Your task to perform on an android device: Search for 3d printed chess sets on Etsy. Image 0: 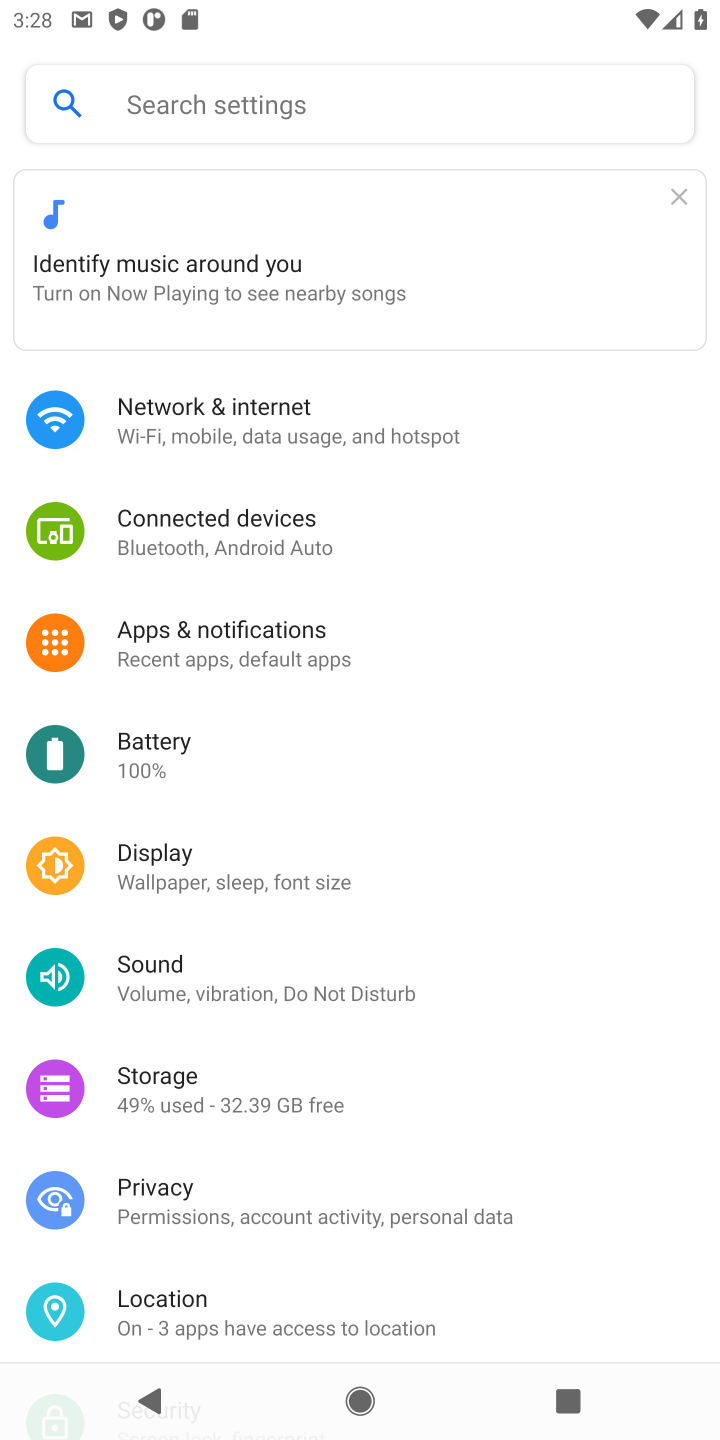
Step 0: press home button
Your task to perform on an android device: Search for 3d printed chess sets on Etsy. Image 1: 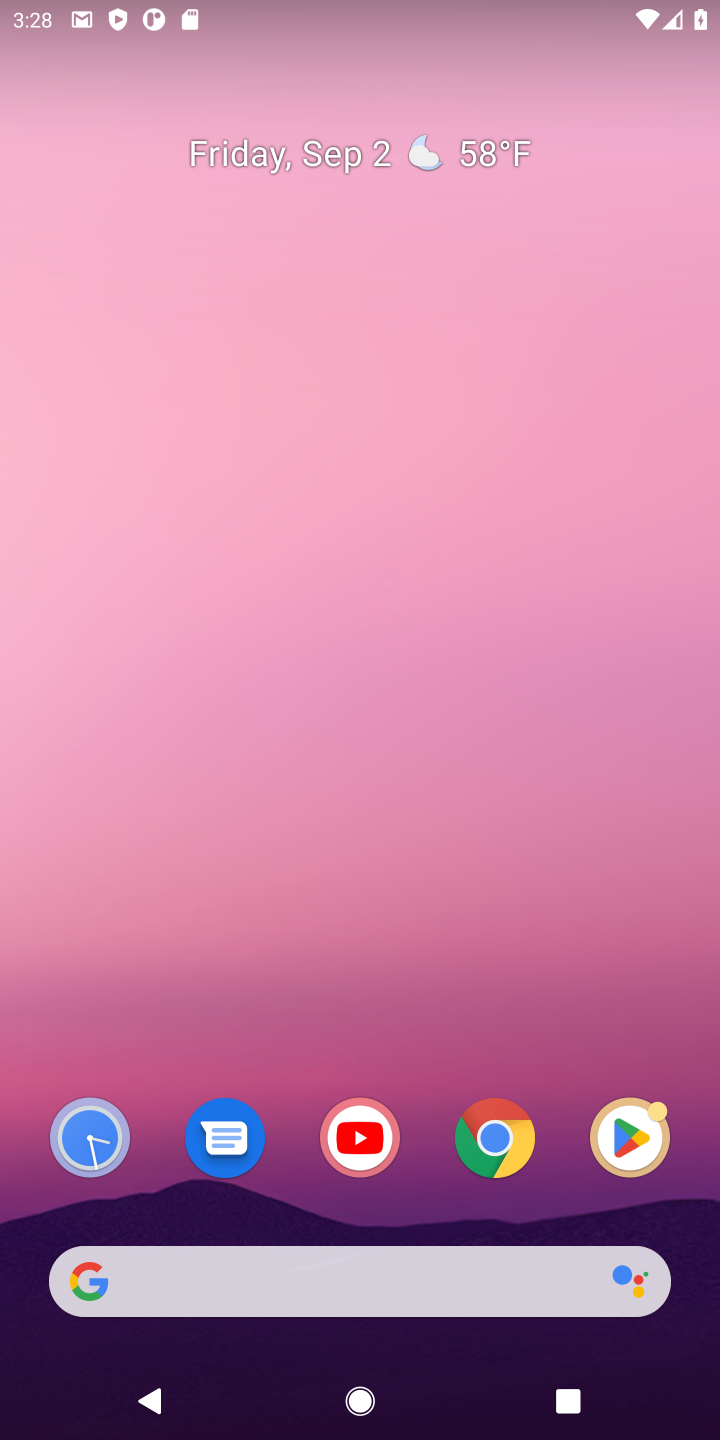
Step 1: click (502, 1134)
Your task to perform on an android device: Search for 3d printed chess sets on Etsy. Image 2: 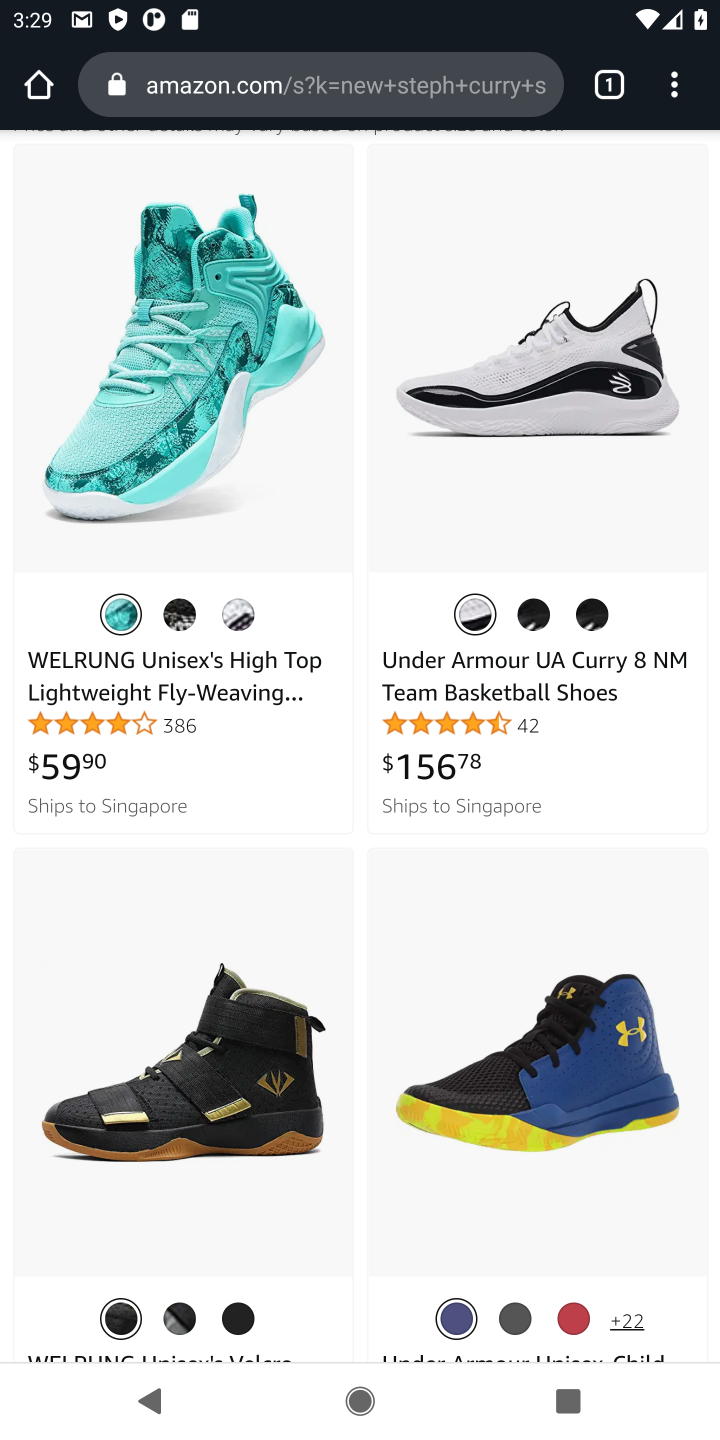
Step 2: click (363, 83)
Your task to perform on an android device: Search for 3d printed chess sets on Etsy. Image 3: 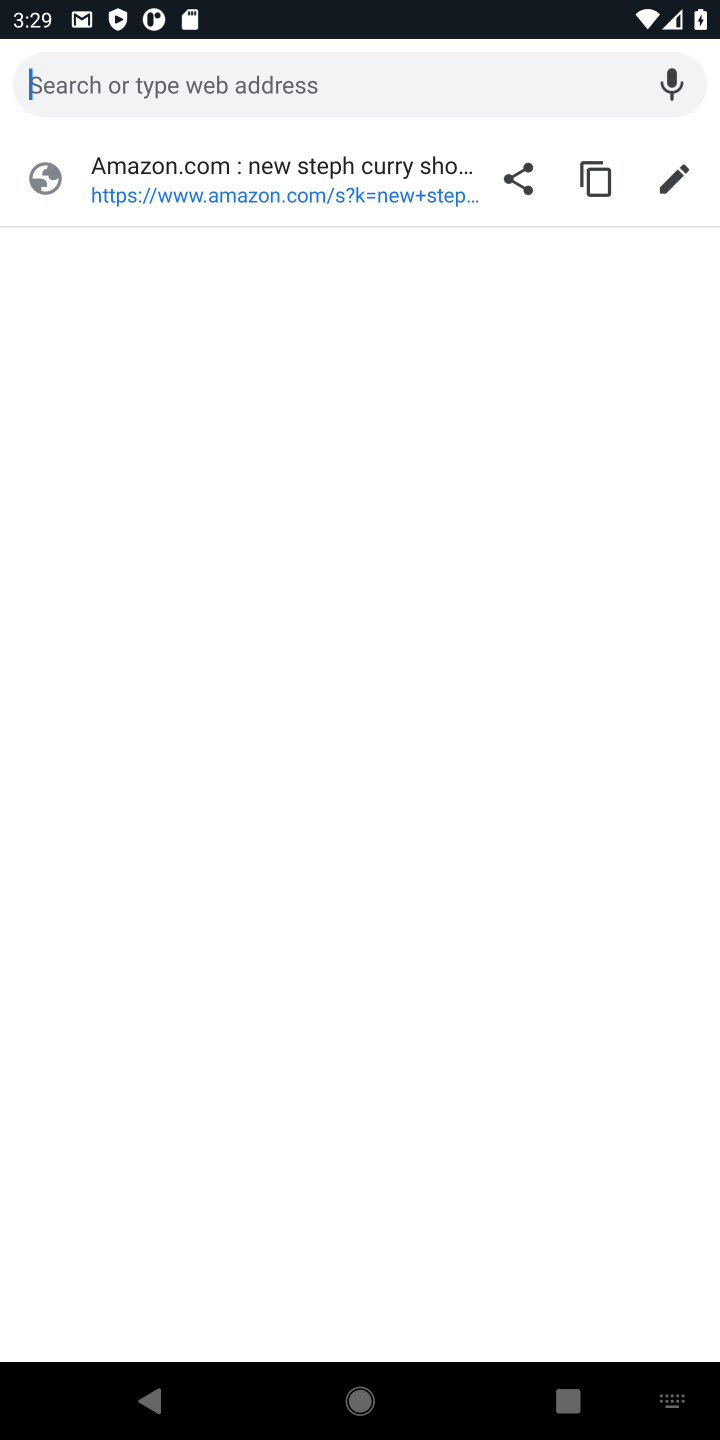
Step 3: type "etsy"
Your task to perform on an android device: Search for 3d printed chess sets on Etsy. Image 4: 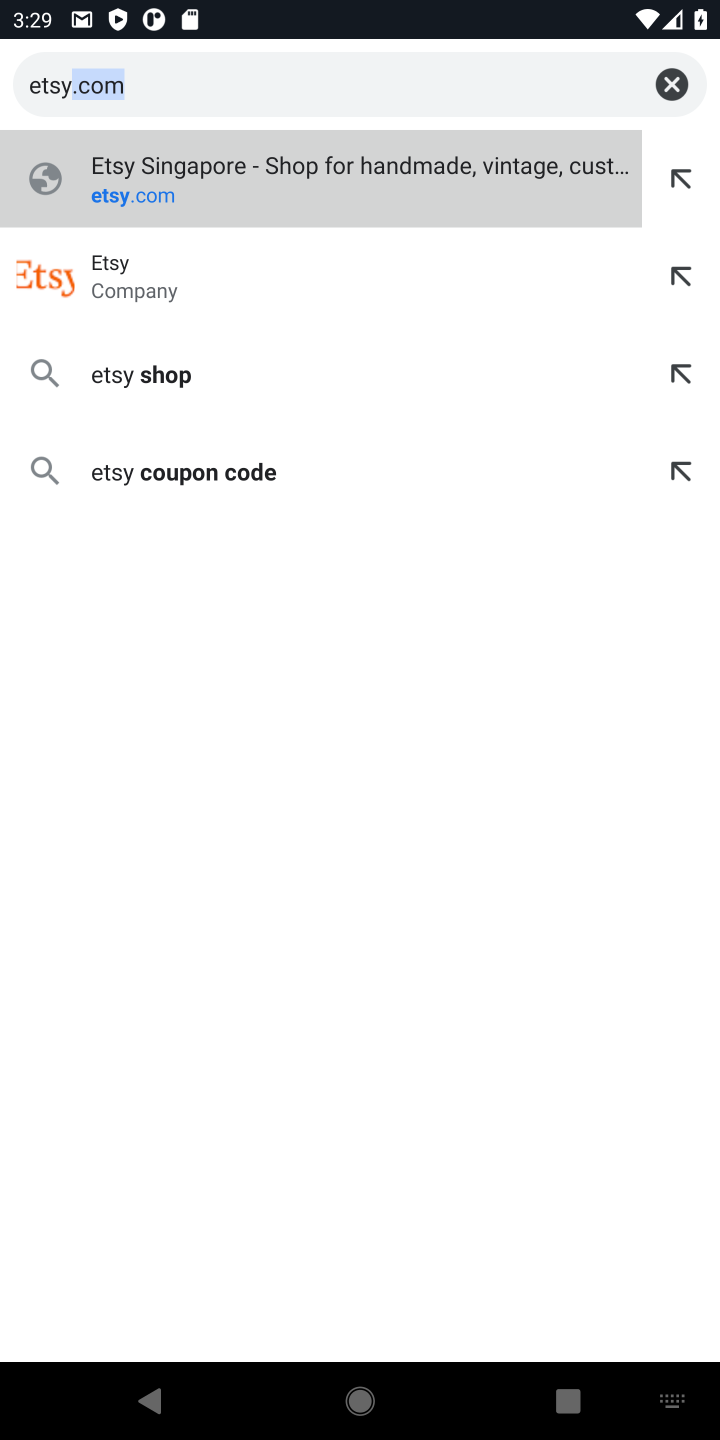
Step 4: click (467, 179)
Your task to perform on an android device: Search for 3d printed chess sets on Etsy. Image 5: 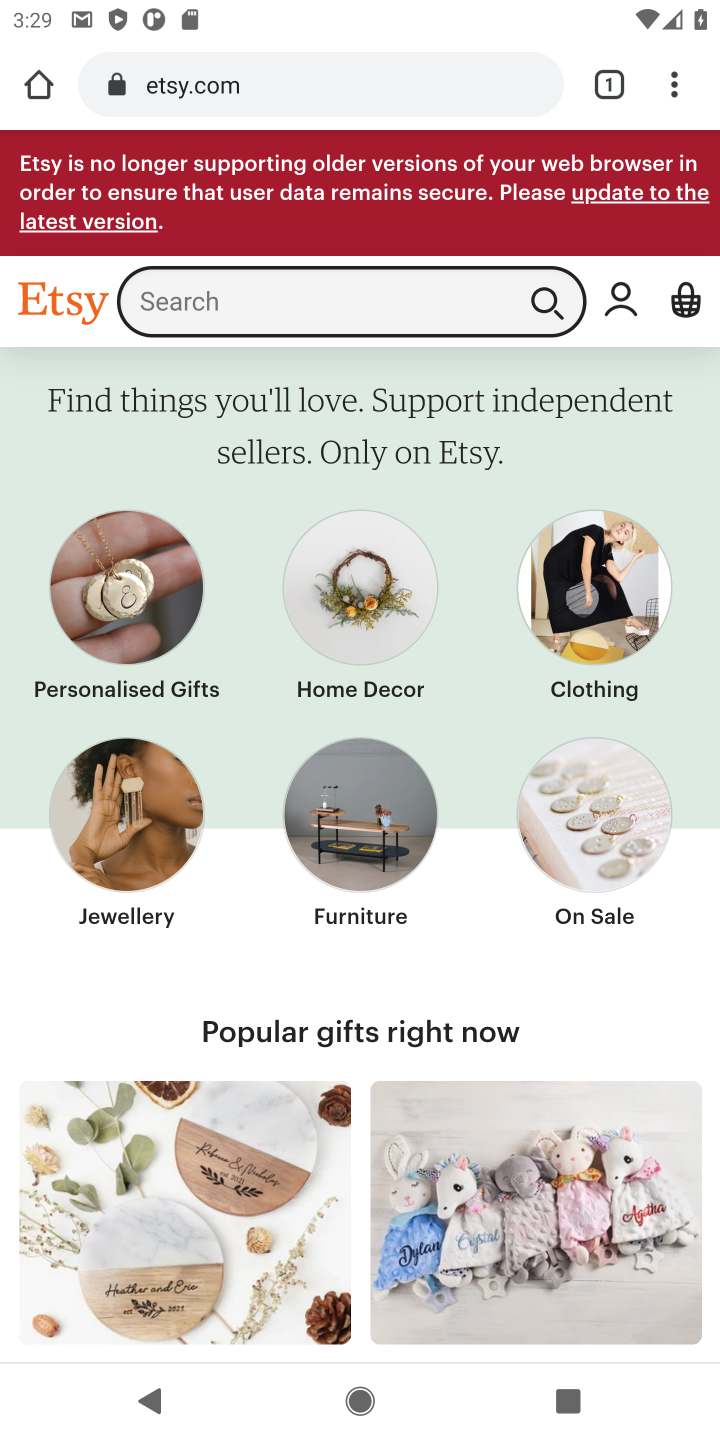
Step 5: click (391, 298)
Your task to perform on an android device: Search for 3d printed chess sets on Etsy. Image 6: 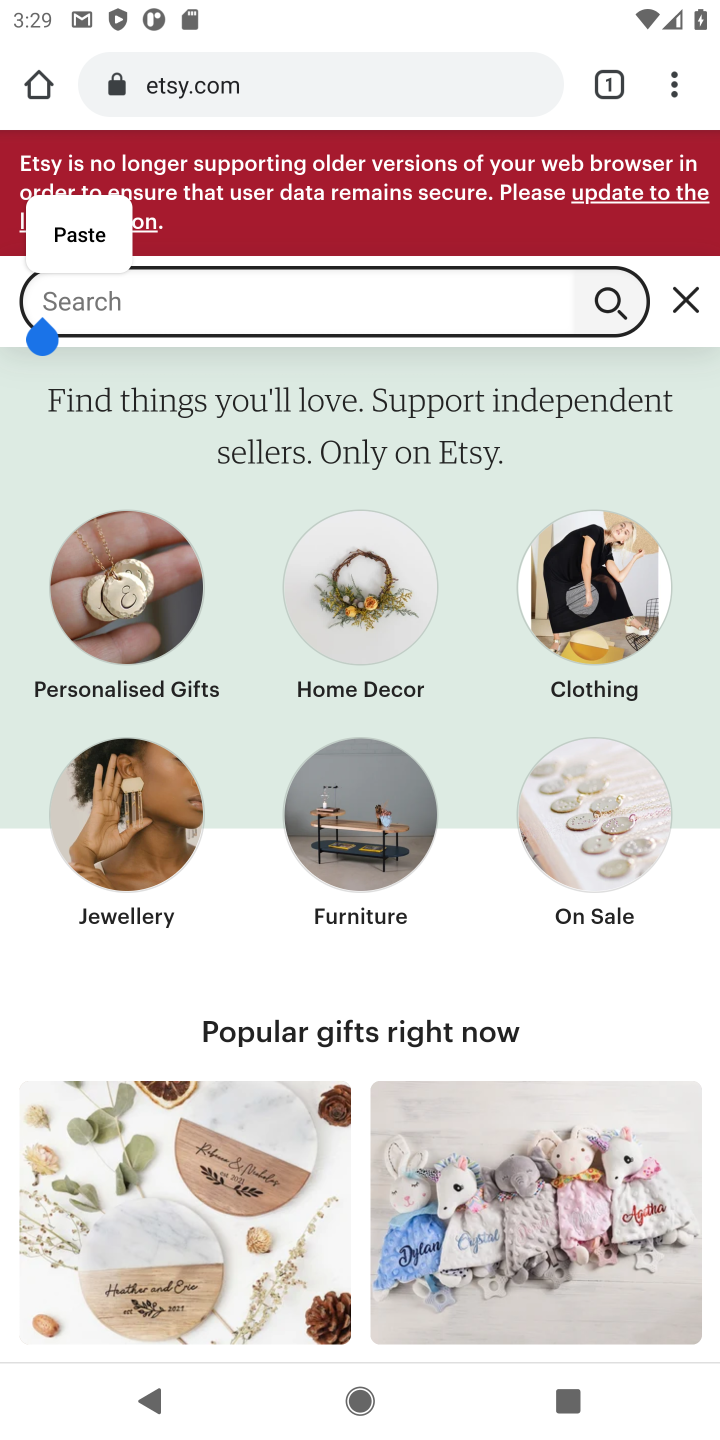
Step 6: type "3d printed chess"
Your task to perform on an android device: Search for 3d printed chess sets on Etsy. Image 7: 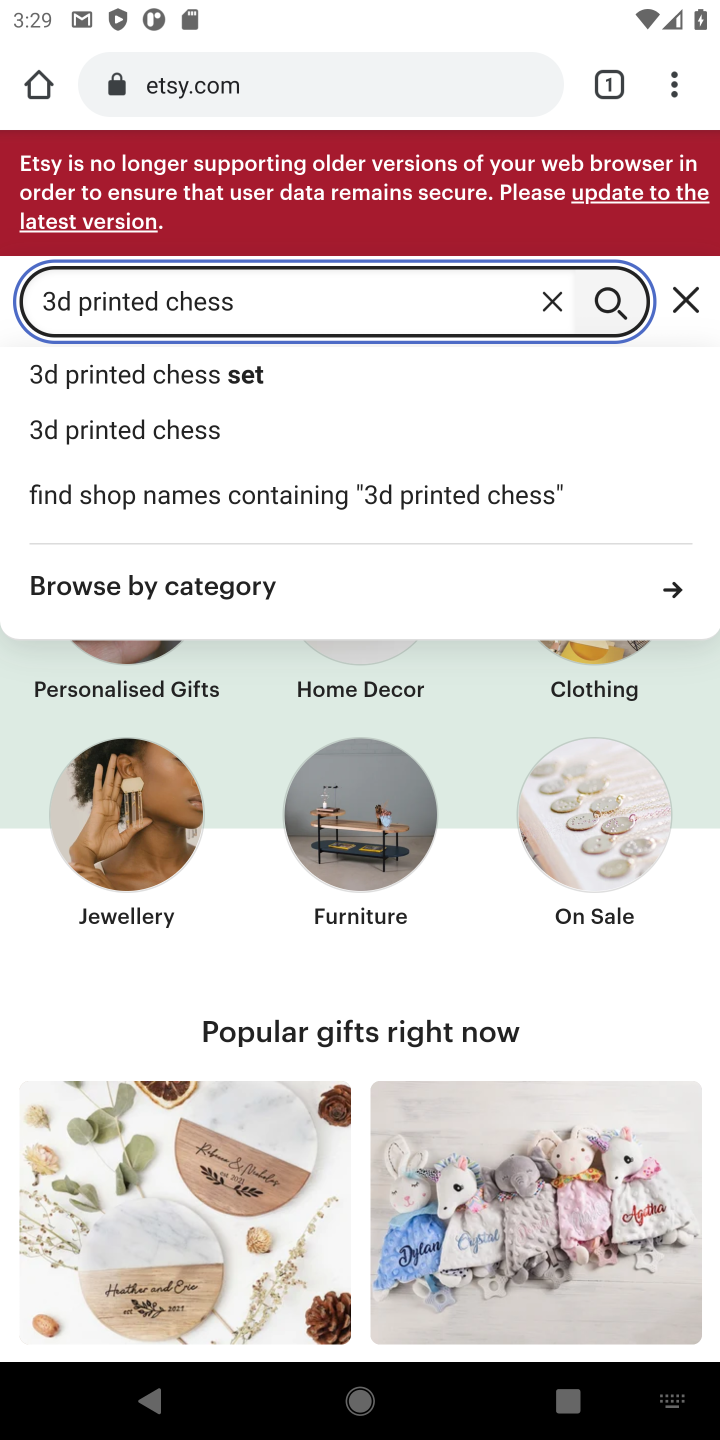
Step 7: click (188, 425)
Your task to perform on an android device: Search for 3d printed chess sets on Etsy. Image 8: 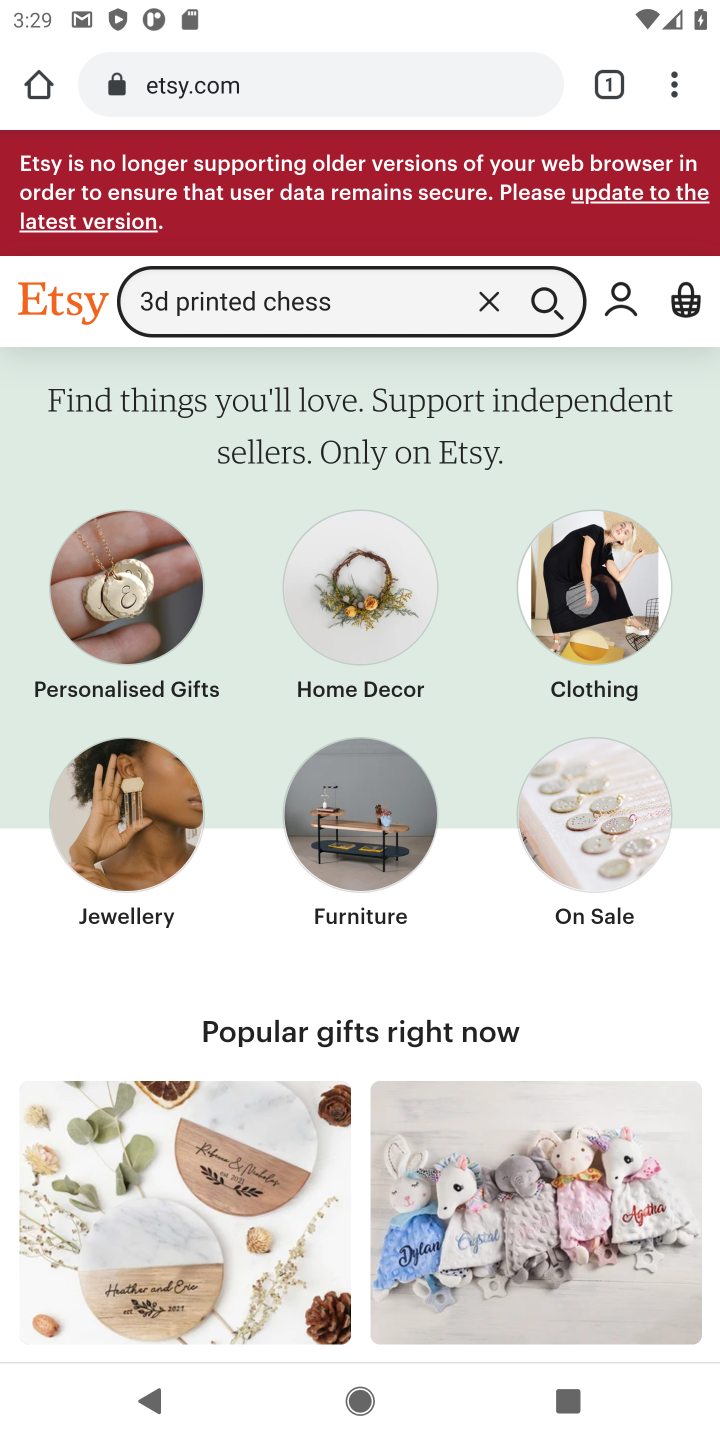
Step 8: drag from (459, 720) to (446, 899)
Your task to perform on an android device: Search for 3d printed chess sets on Etsy. Image 9: 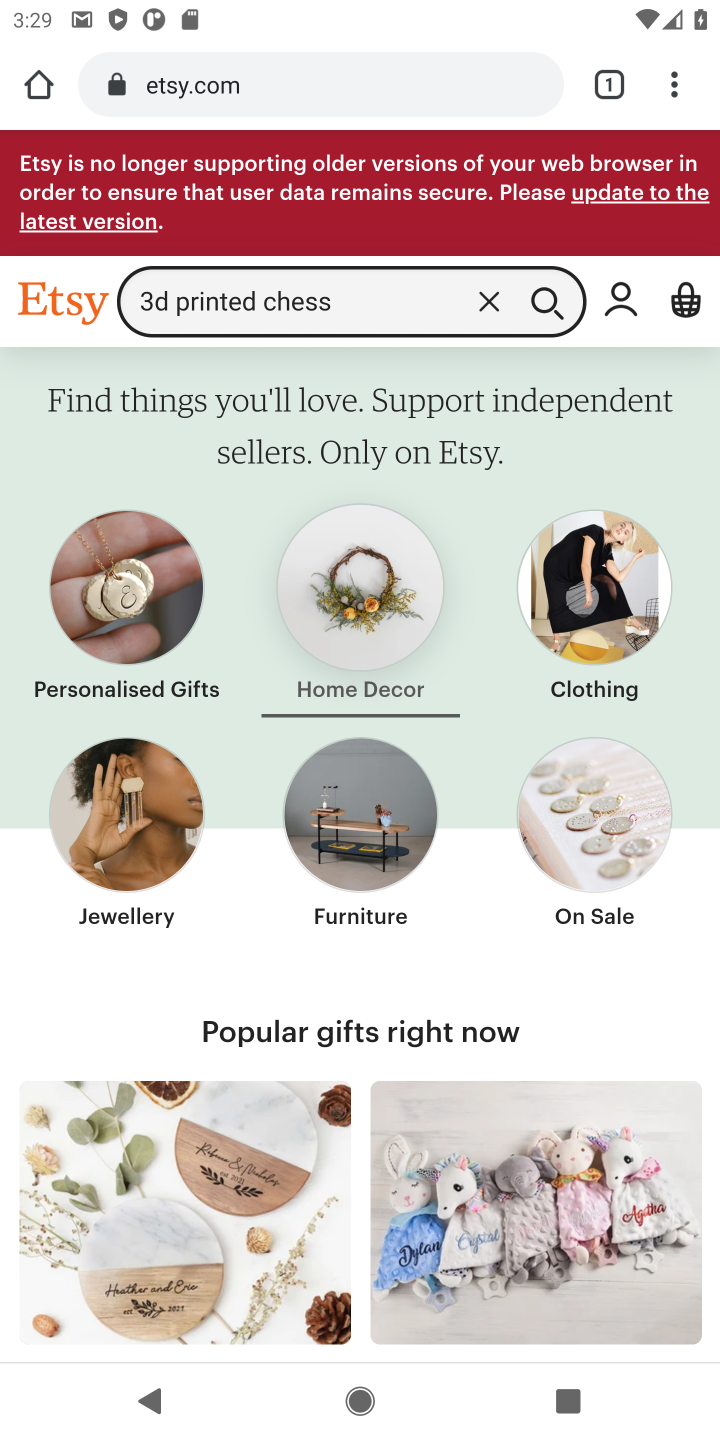
Step 9: click (551, 302)
Your task to perform on an android device: Search for 3d printed chess sets on Etsy. Image 10: 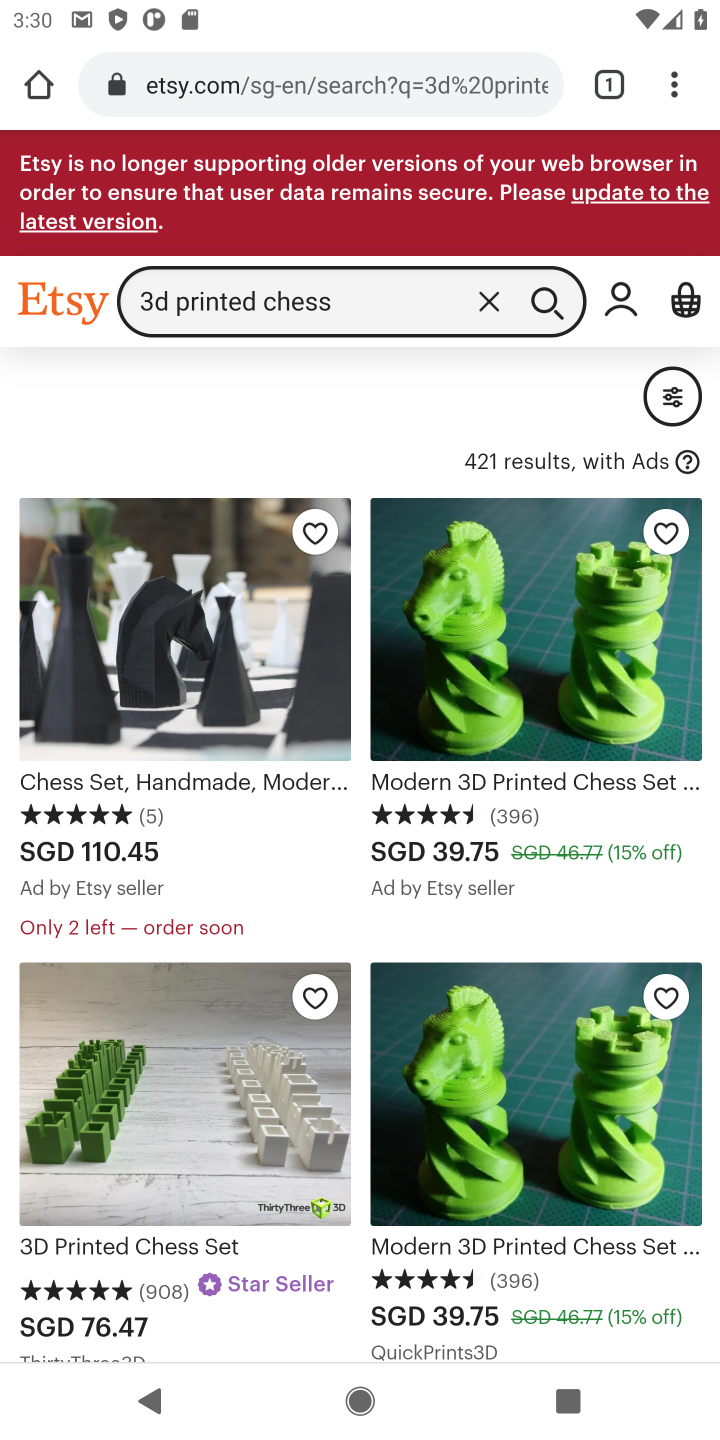
Step 10: task complete